Your task to perform on an android device: set the stopwatch Image 0: 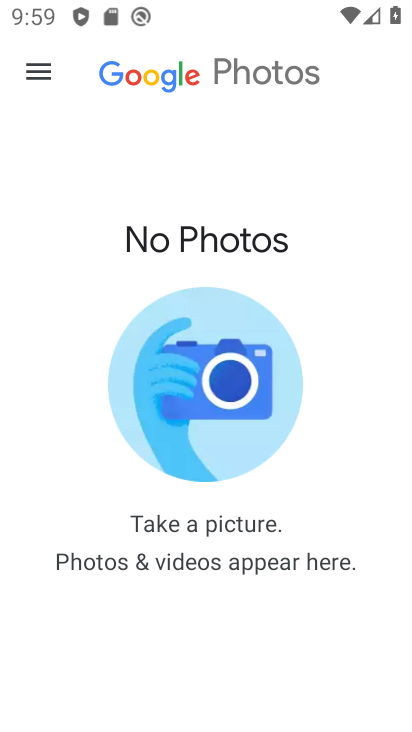
Step 0: press home button
Your task to perform on an android device: set the stopwatch Image 1: 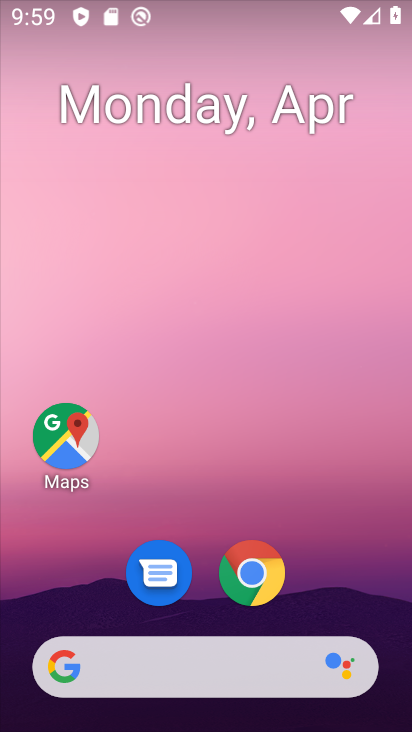
Step 1: drag from (257, 475) to (329, 56)
Your task to perform on an android device: set the stopwatch Image 2: 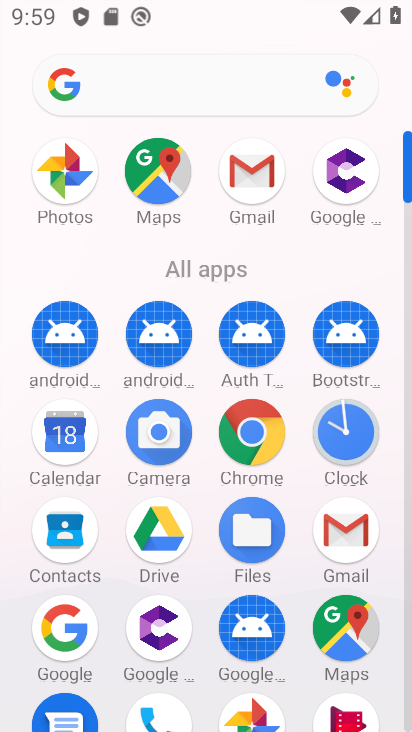
Step 2: click (365, 434)
Your task to perform on an android device: set the stopwatch Image 3: 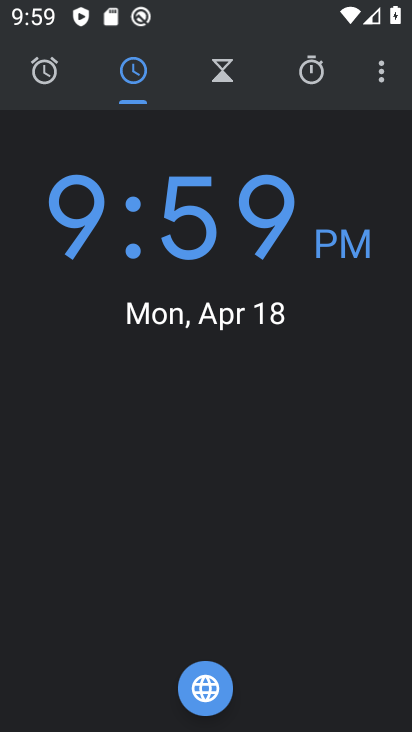
Step 3: click (320, 85)
Your task to perform on an android device: set the stopwatch Image 4: 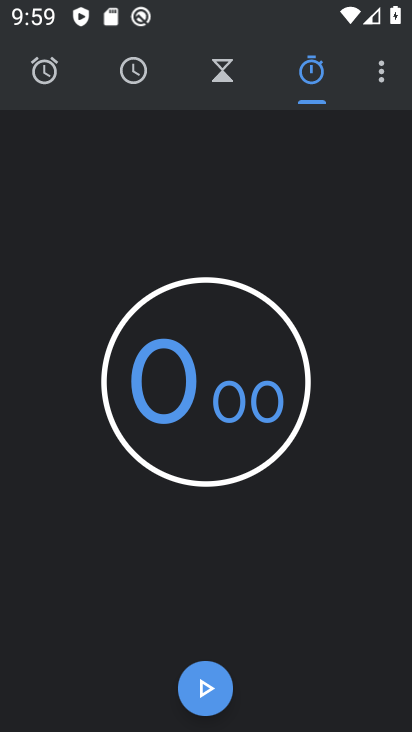
Step 4: click (223, 373)
Your task to perform on an android device: set the stopwatch Image 5: 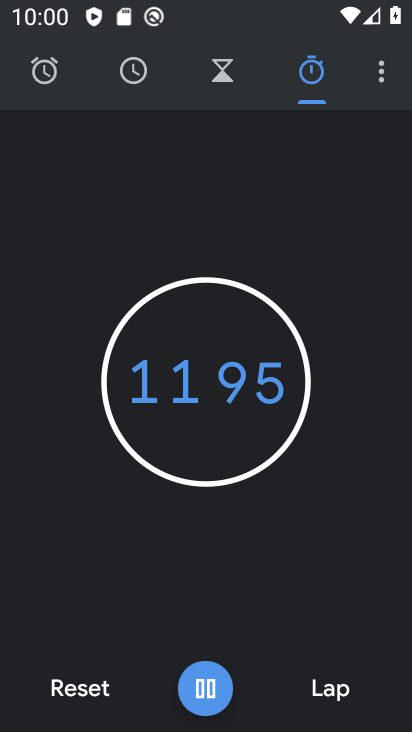
Step 5: task complete